Your task to perform on an android device: turn on wifi Image 0: 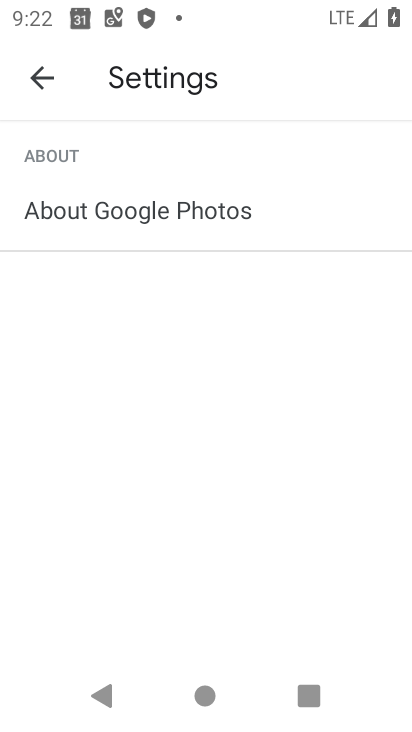
Step 0: press home button
Your task to perform on an android device: turn on wifi Image 1: 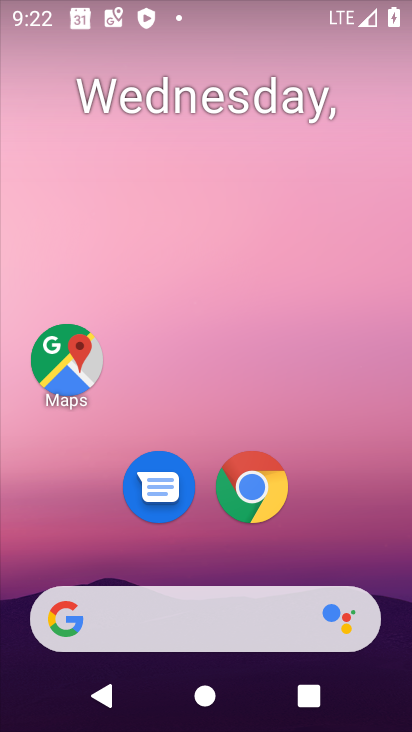
Step 1: drag from (265, 662) to (155, 165)
Your task to perform on an android device: turn on wifi Image 2: 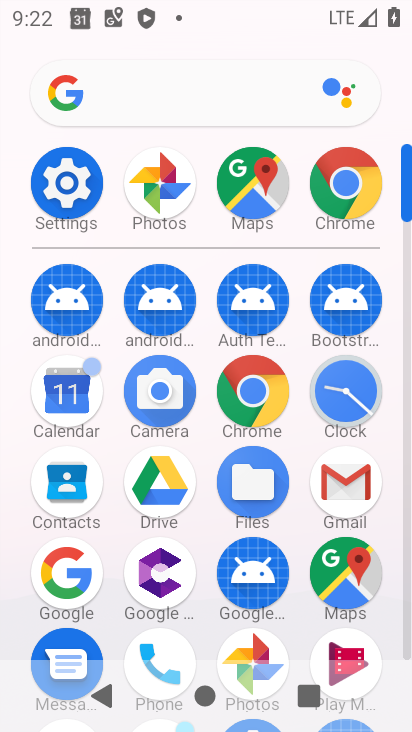
Step 2: click (54, 176)
Your task to perform on an android device: turn on wifi Image 3: 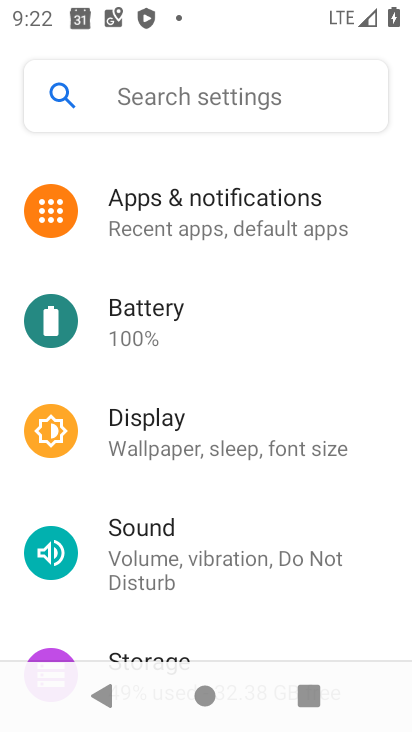
Step 3: drag from (186, 265) to (258, 572)
Your task to perform on an android device: turn on wifi Image 4: 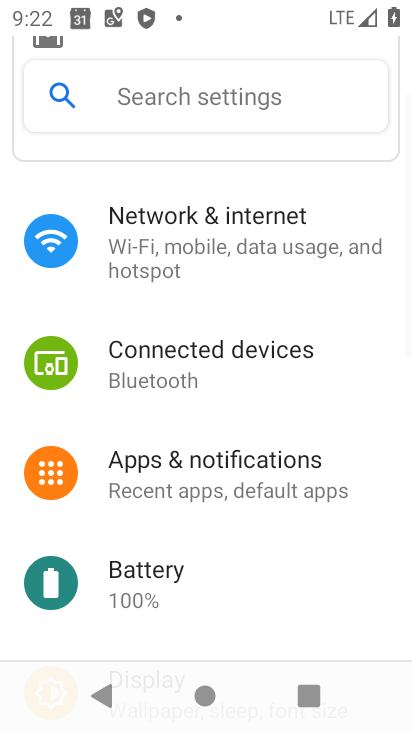
Step 4: click (206, 260)
Your task to perform on an android device: turn on wifi Image 5: 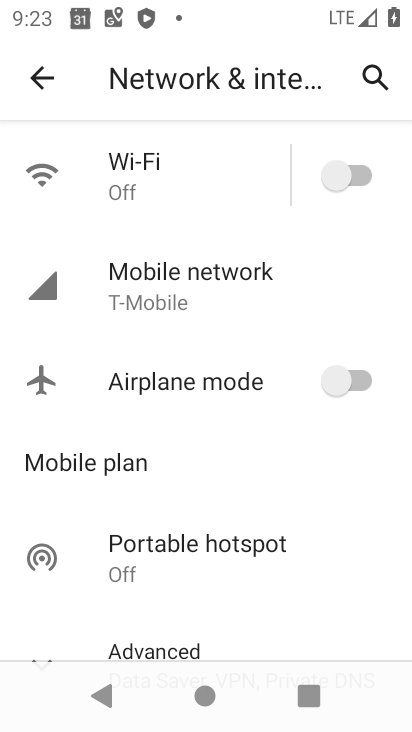
Step 5: click (98, 182)
Your task to perform on an android device: turn on wifi Image 6: 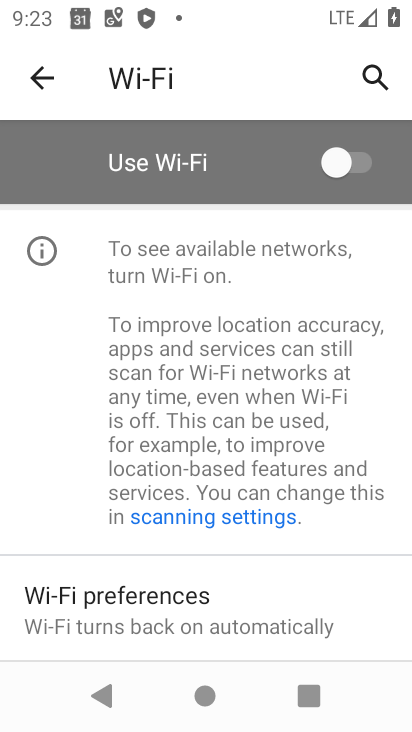
Step 6: click (341, 148)
Your task to perform on an android device: turn on wifi Image 7: 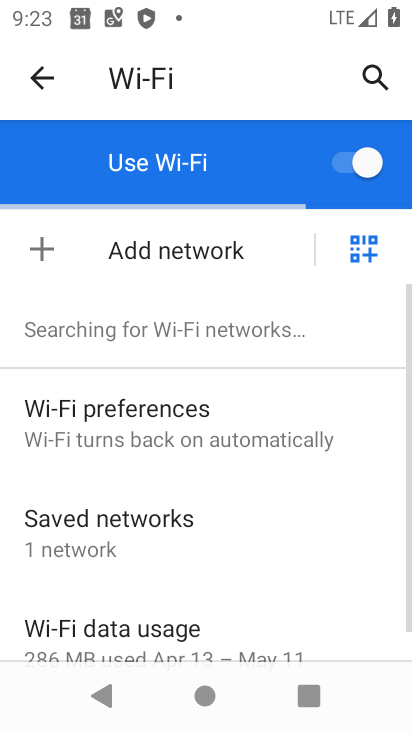
Step 7: task complete